Your task to perform on an android device: show emergency info Image 0: 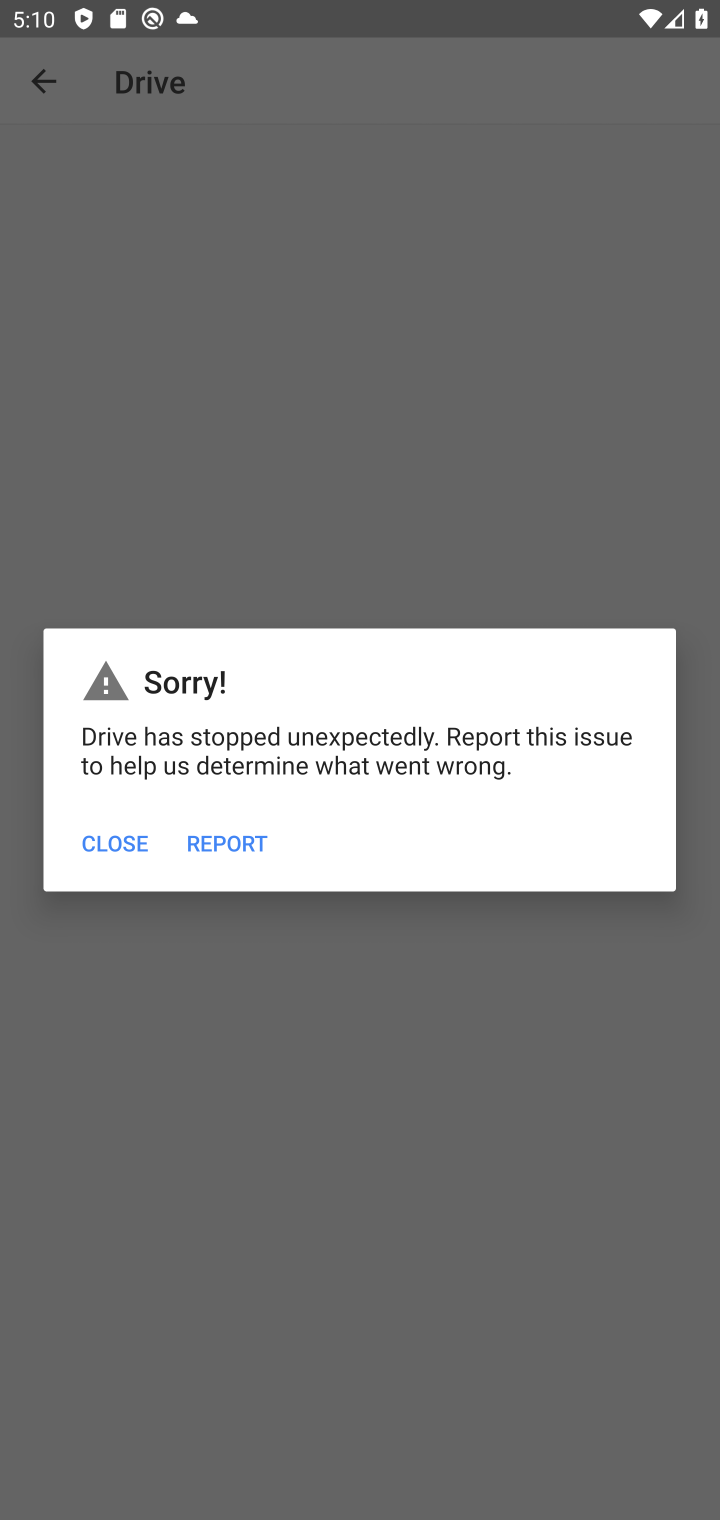
Step 0: press back button
Your task to perform on an android device: show emergency info Image 1: 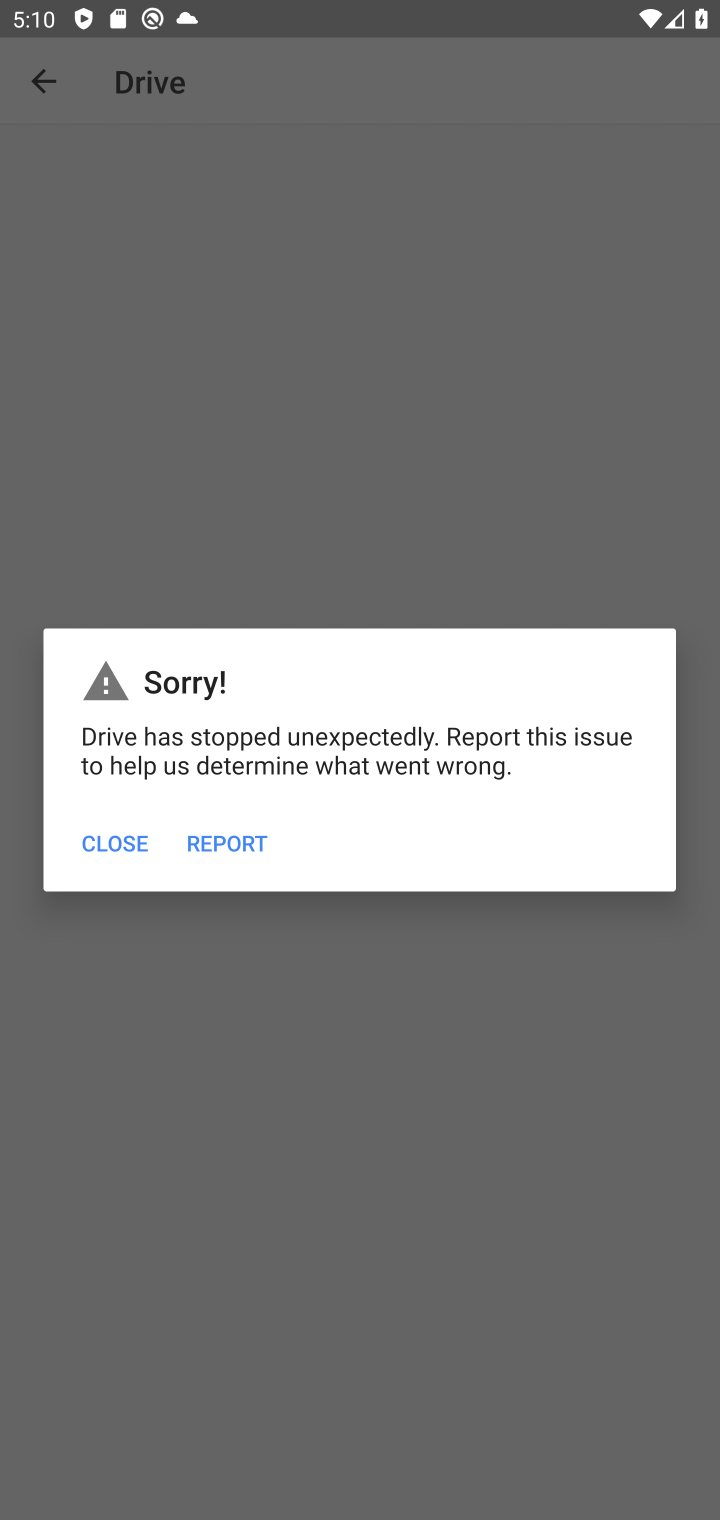
Step 1: press home button
Your task to perform on an android device: show emergency info Image 2: 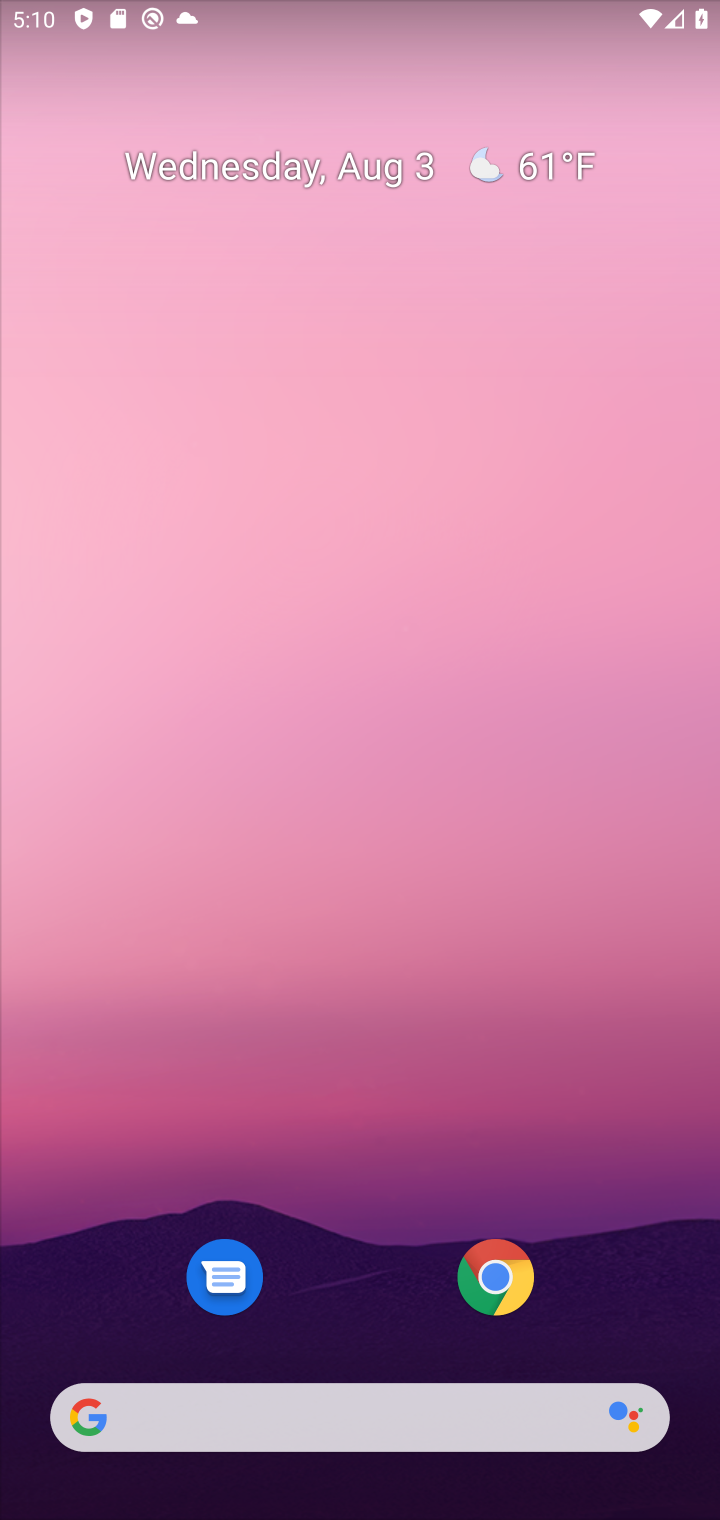
Step 2: drag from (427, 1254) to (508, 121)
Your task to perform on an android device: show emergency info Image 3: 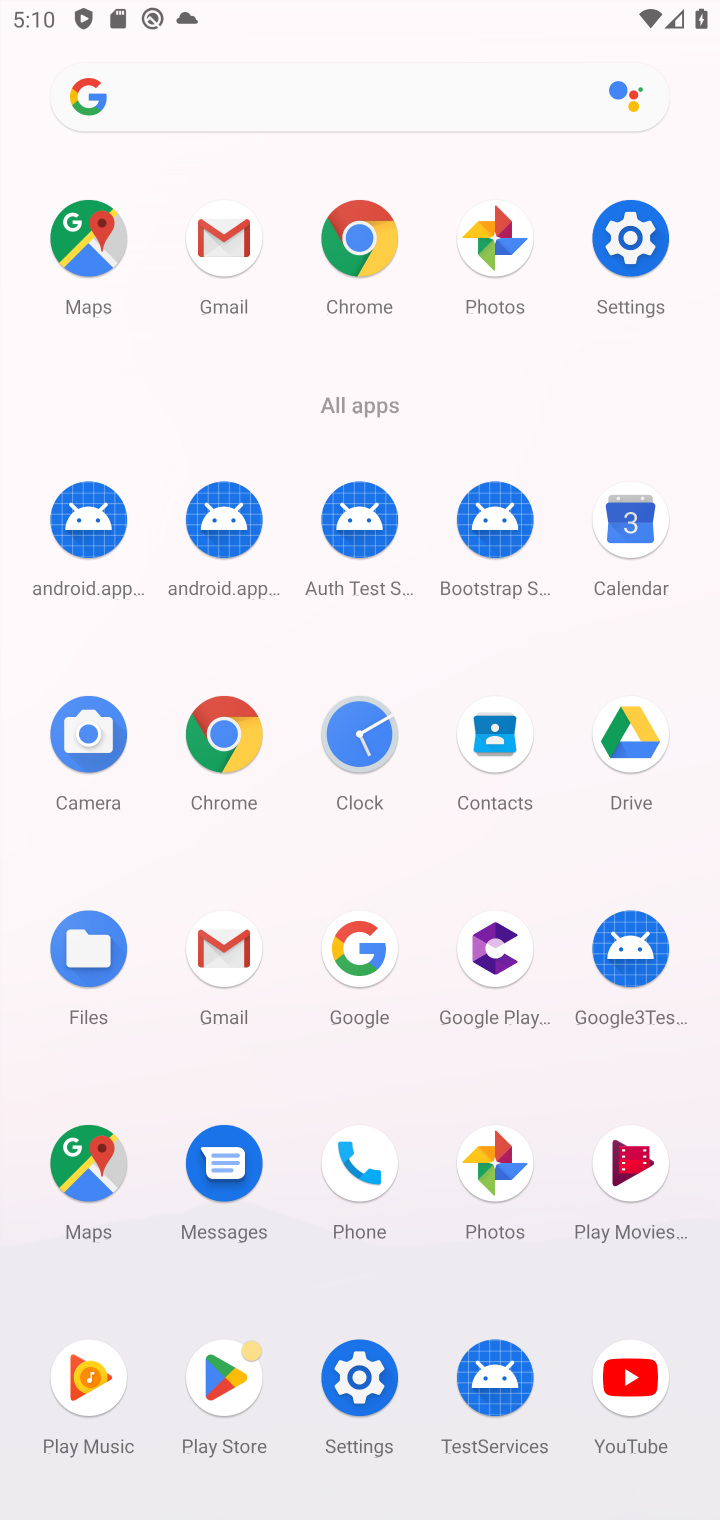
Step 3: click (631, 236)
Your task to perform on an android device: show emergency info Image 4: 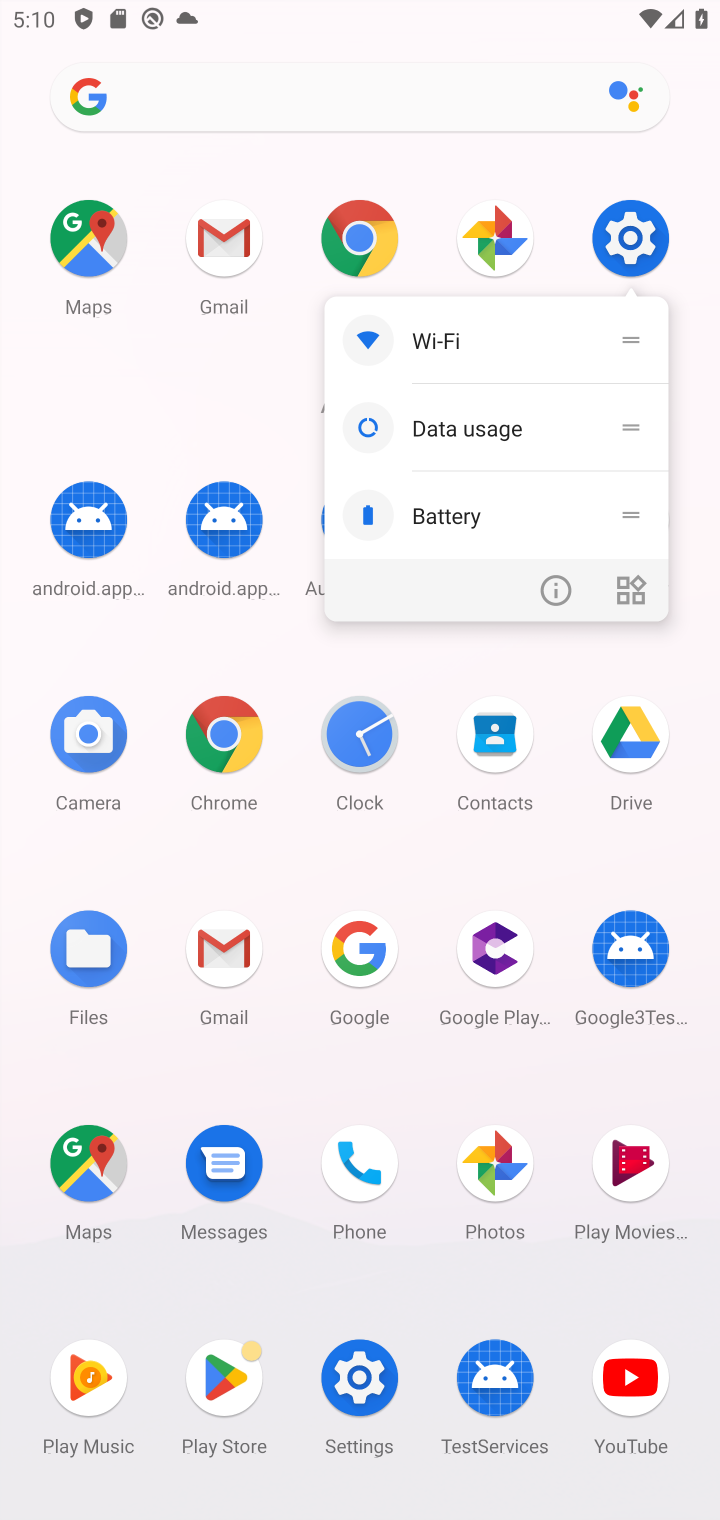
Step 4: click (618, 208)
Your task to perform on an android device: show emergency info Image 5: 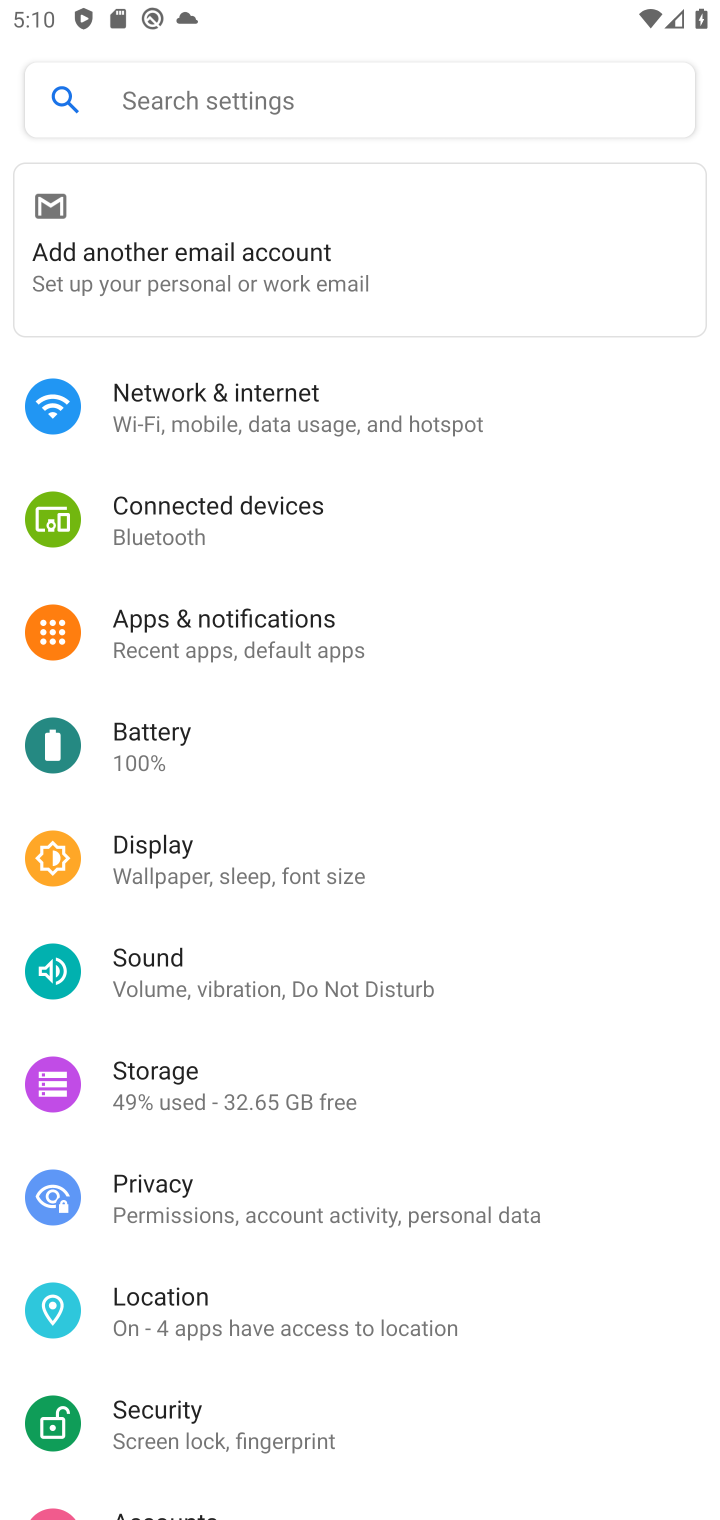
Step 5: drag from (259, 1265) to (414, 112)
Your task to perform on an android device: show emergency info Image 6: 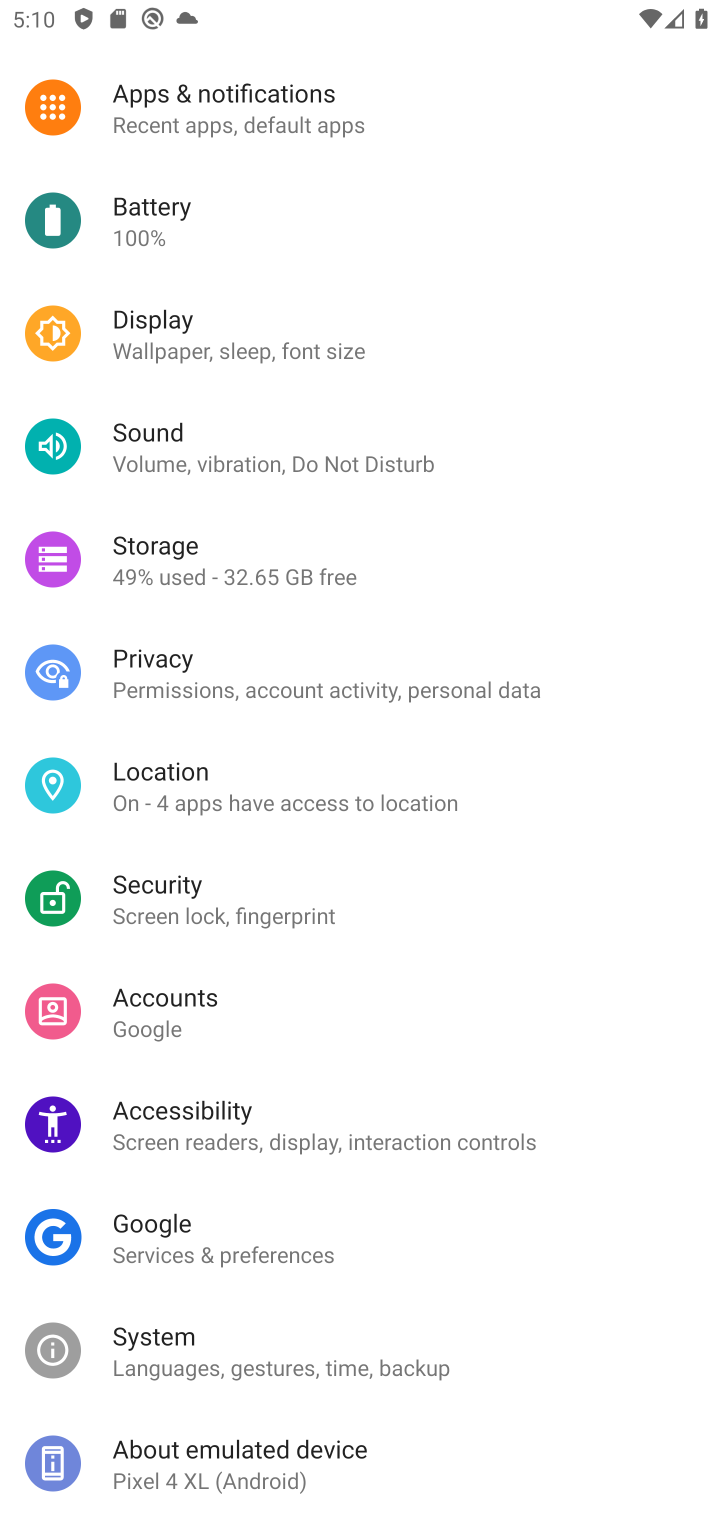
Step 6: click (218, 1449)
Your task to perform on an android device: show emergency info Image 7: 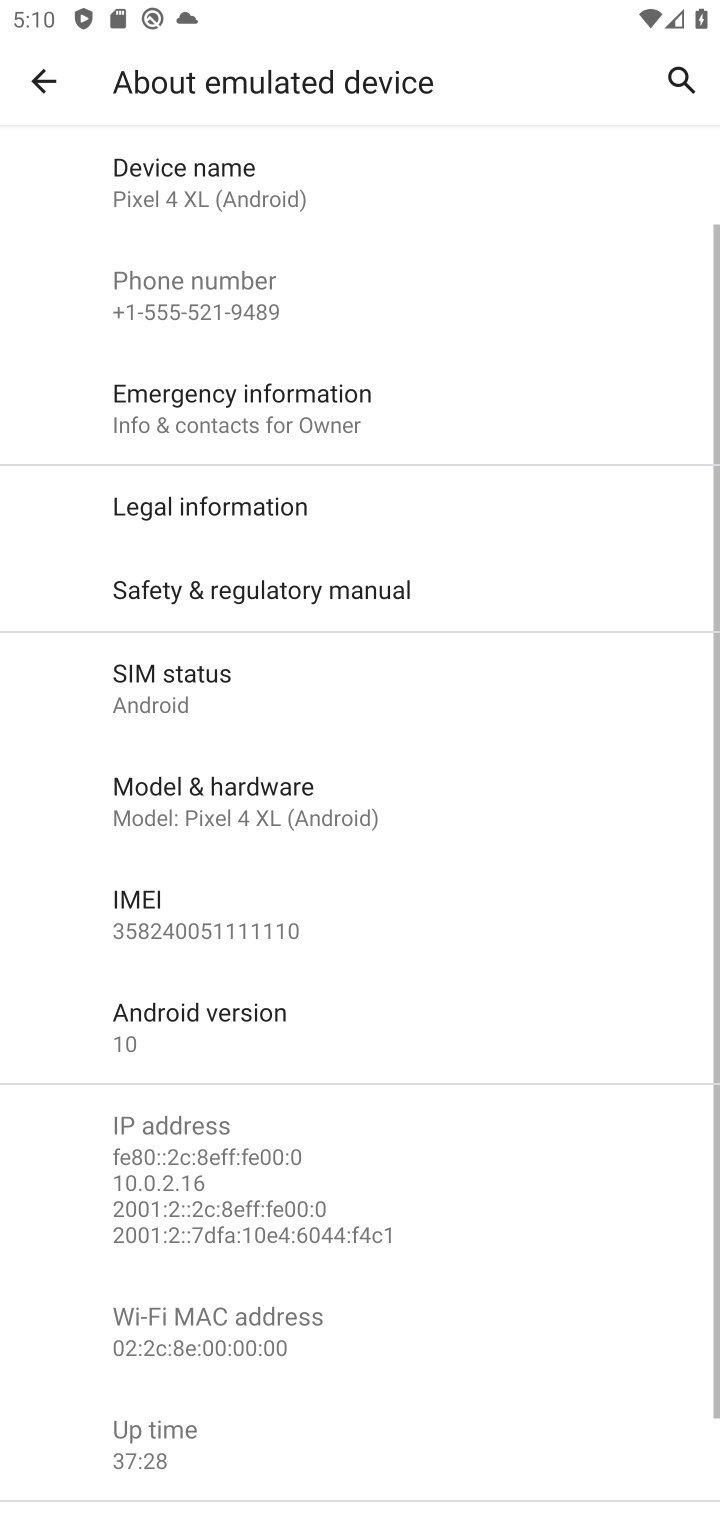
Step 7: click (290, 401)
Your task to perform on an android device: show emergency info Image 8: 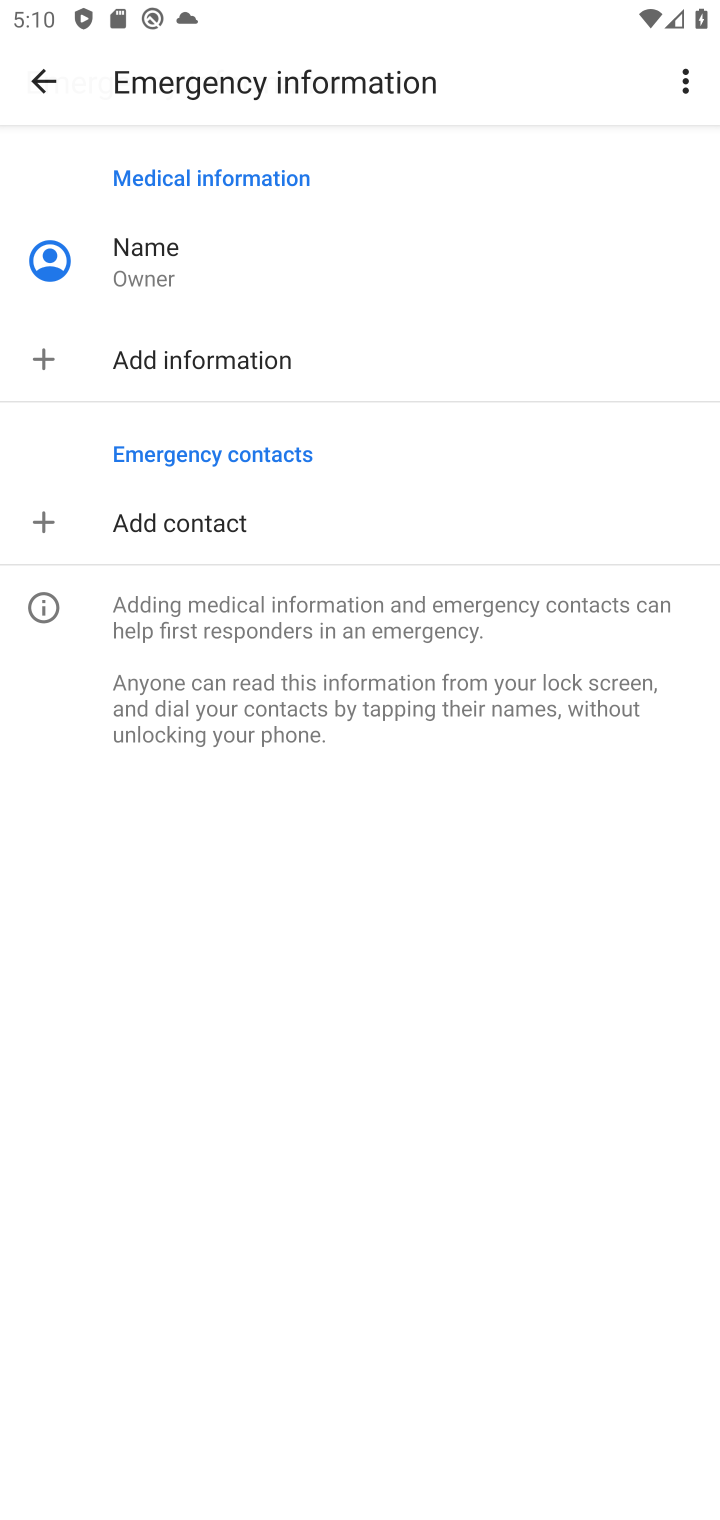
Step 8: task complete